Your task to perform on an android device: Open network settings Image 0: 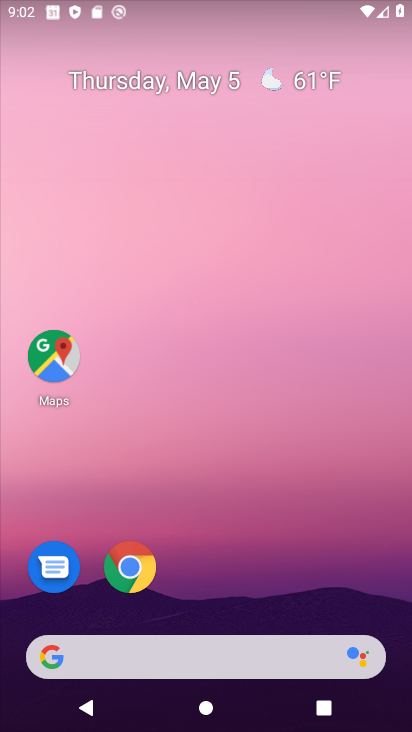
Step 0: drag from (206, 726) to (200, 204)
Your task to perform on an android device: Open network settings Image 1: 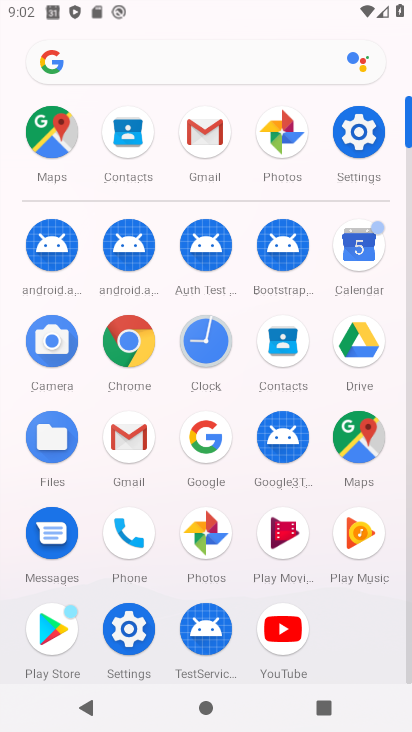
Step 1: click (355, 145)
Your task to perform on an android device: Open network settings Image 2: 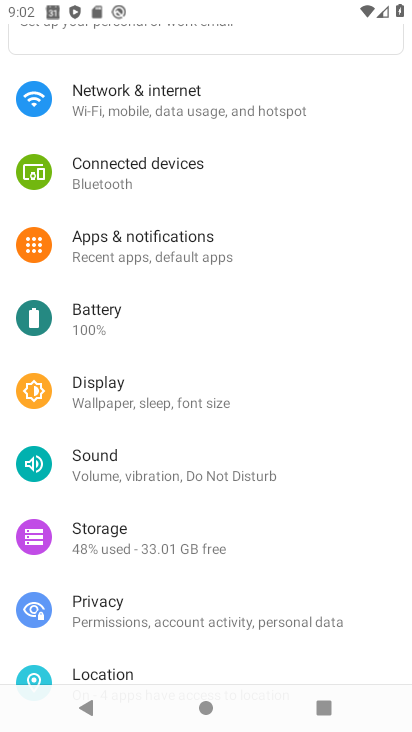
Step 2: click (130, 106)
Your task to perform on an android device: Open network settings Image 3: 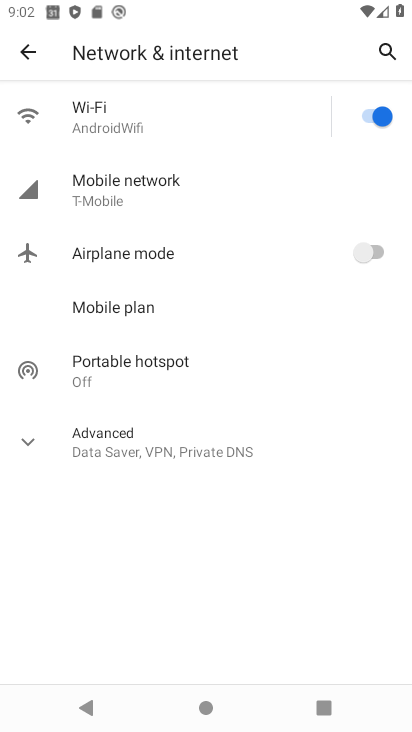
Step 3: click (137, 182)
Your task to perform on an android device: Open network settings Image 4: 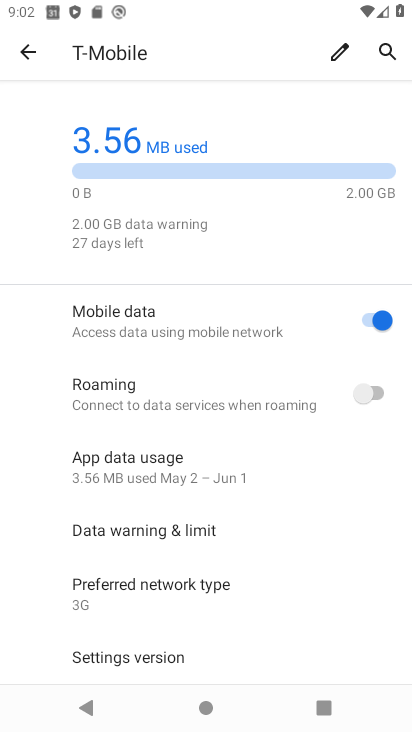
Step 4: task complete